Your task to perform on an android device: allow notifications from all sites in the chrome app Image 0: 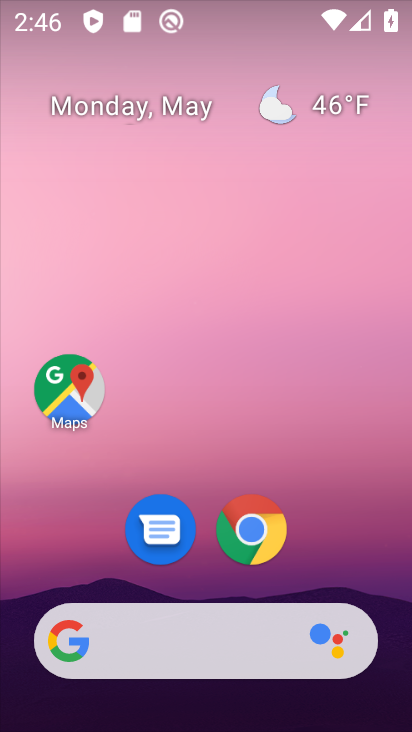
Step 0: drag from (384, 534) to (313, 183)
Your task to perform on an android device: allow notifications from all sites in the chrome app Image 1: 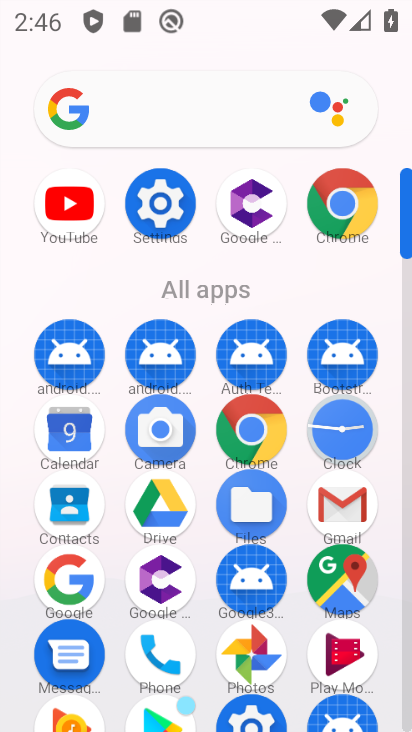
Step 1: drag from (302, 672) to (278, 381)
Your task to perform on an android device: allow notifications from all sites in the chrome app Image 2: 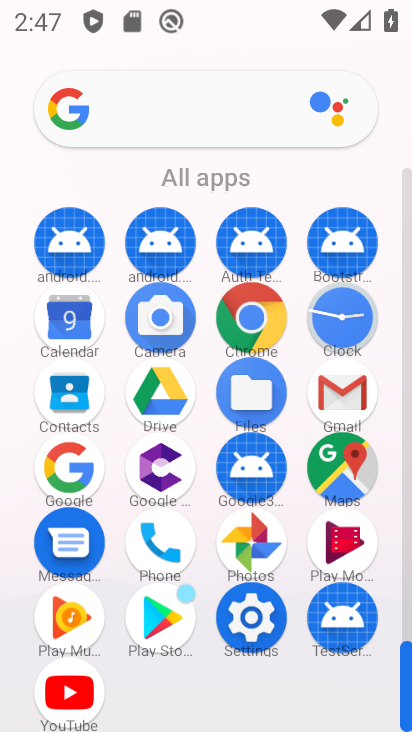
Step 2: click (269, 329)
Your task to perform on an android device: allow notifications from all sites in the chrome app Image 3: 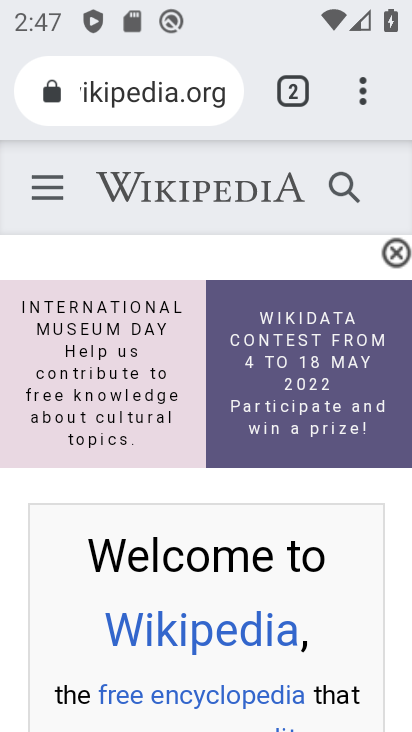
Step 3: drag from (369, 111) to (202, 568)
Your task to perform on an android device: allow notifications from all sites in the chrome app Image 4: 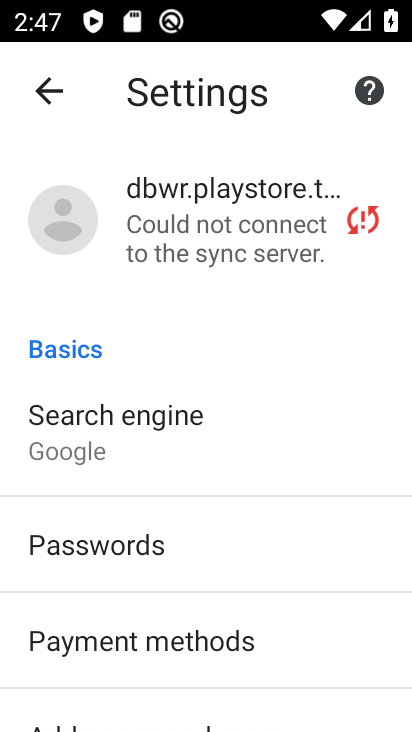
Step 4: drag from (282, 640) to (275, 313)
Your task to perform on an android device: allow notifications from all sites in the chrome app Image 5: 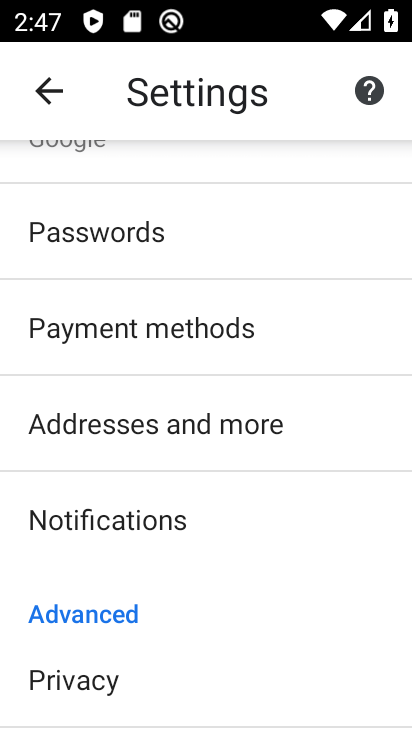
Step 5: drag from (281, 642) to (279, 330)
Your task to perform on an android device: allow notifications from all sites in the chrome app Image 6: 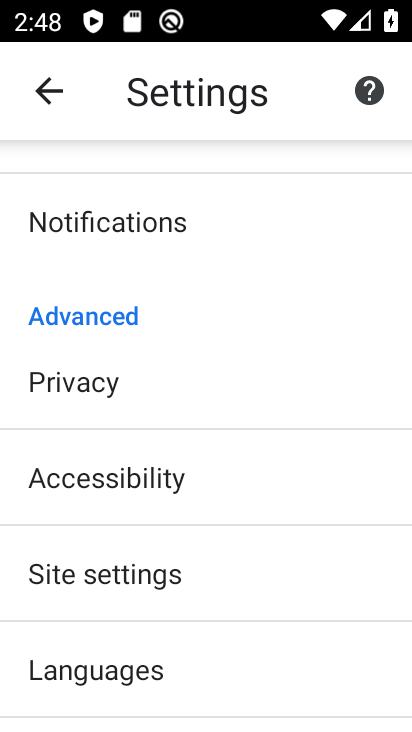
Step 6: drag from (283, 658) to (263, 474)
Your task to perform on an android device: allow notifications from all sites in the chrome app Image 7: 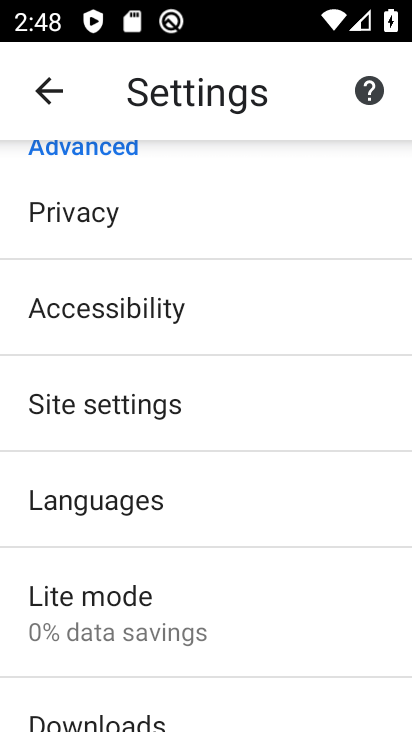
Step 7: click (179, 414)
Your task to perform on an android device: allow notifications from all sites in the chrome app Image 8: 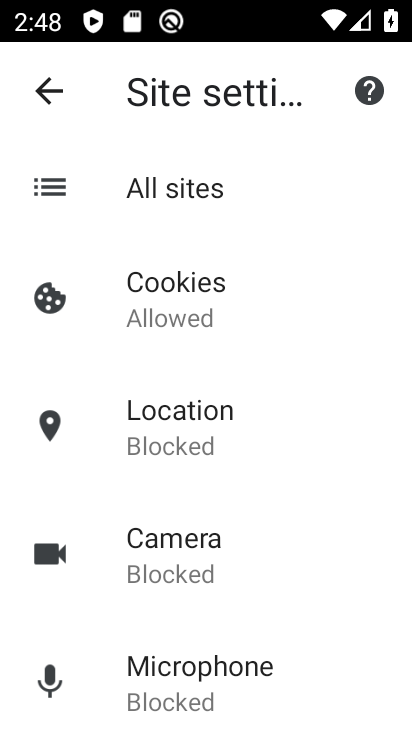
Step 8: drag from (286, 658) to (287, 481)
Your task to perform on an android device: allow notifications from all sites in the chrome app Image 9: 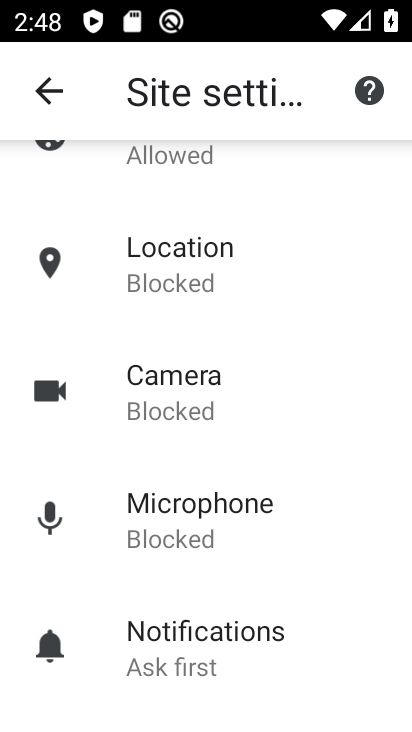
Step 9: drag from (235, 237) to (260, 616)
Your task to perform on an android device: allow notifications from all sites in the chrome app Image 10: 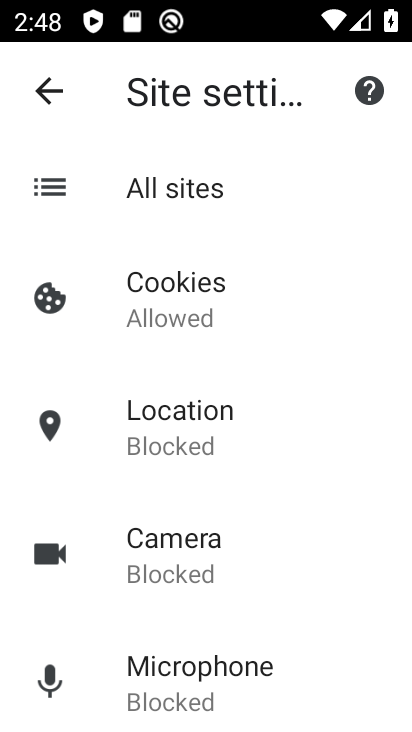
Step 10: click (193, 185)
Your task to perform on an android device: allow notifications from all sites in the chrome app Image 11: 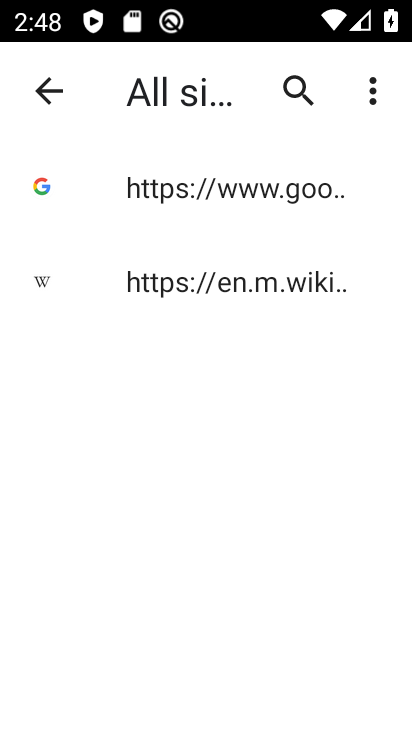
Step 11: click (257, 188)
Your task to perform on an android device: allow notifications from all sites in the chrome app Image 12: 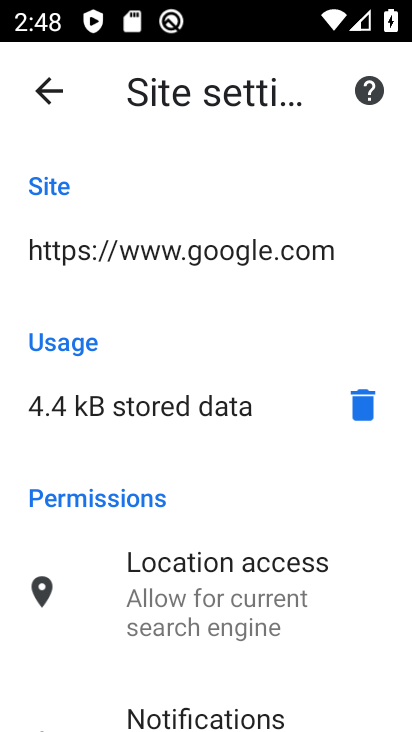
Step 12: task complete